Your task to perform on an android device: refresh tabs in the chrome app Image 0: 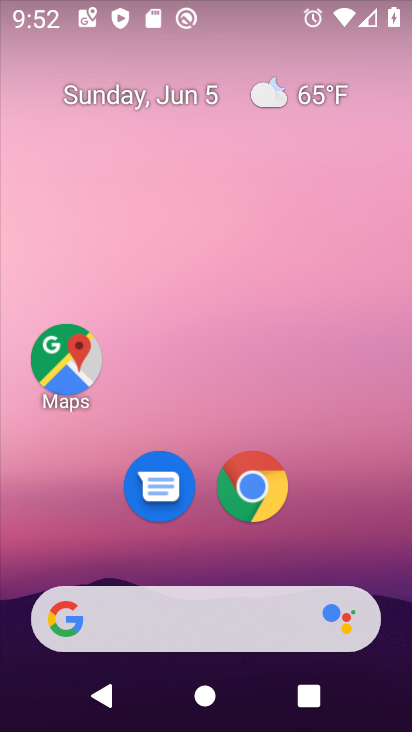
Step 0: click (299, 144)
Your task to perform on an android device: refresh tabs in the chrome app Image 1: 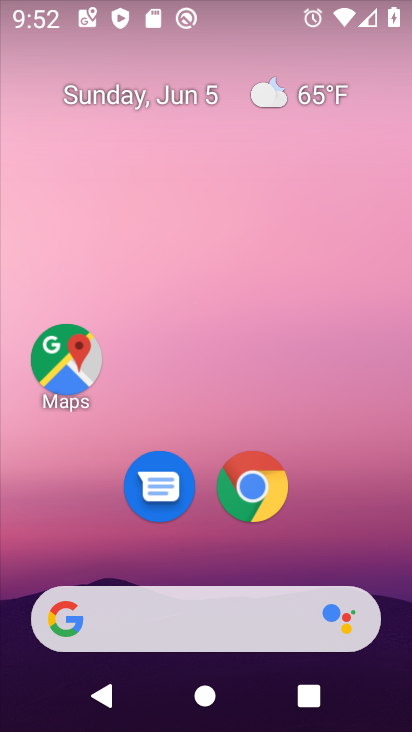
Step 1: drag from (324, 534) to (319, 130)
Your task to perform on an android device: refresh tabs in the chrome app Image 2: 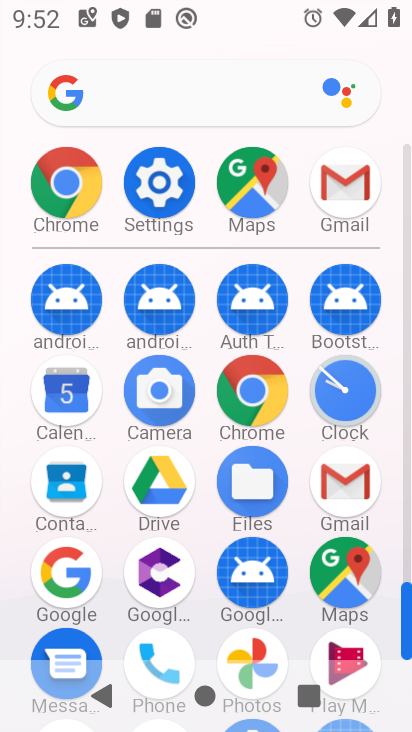
Step 2: click (257, 401)
Your task to perform on an android device: refresh tabs in the chrome app Image 3: 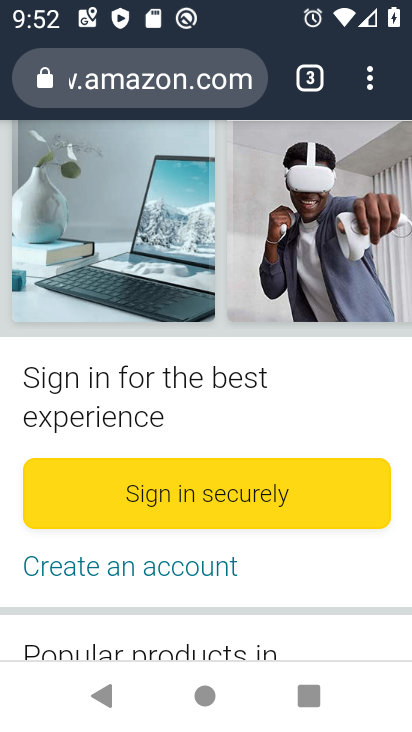
Step 3: click (124, 75)
Your task to perform on an android device: refresh tabs in the chrome app Image 4: 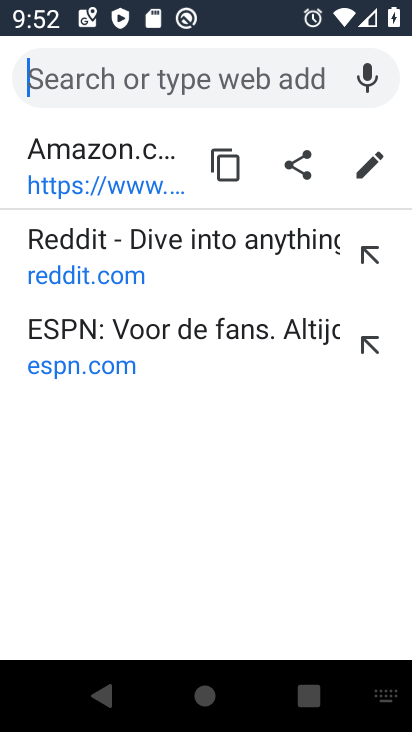
Step 4: click (195, 561)
Your task to perform on an android device: refresh tabs in the chrome app Image 5: 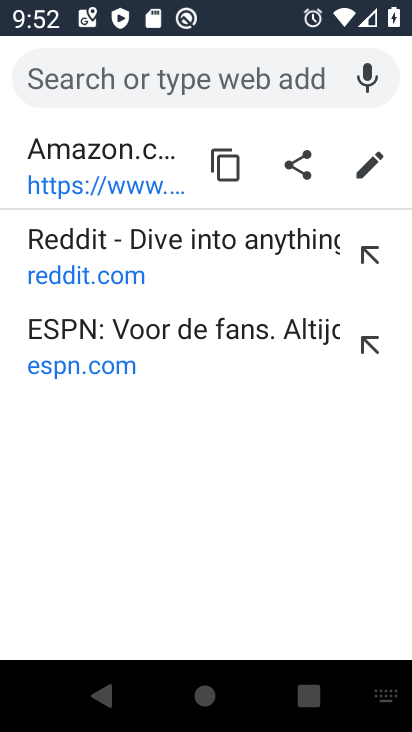
Step 5: press back button
Your task to perform on an android device: refresh tabs in the chrome app Image 6: 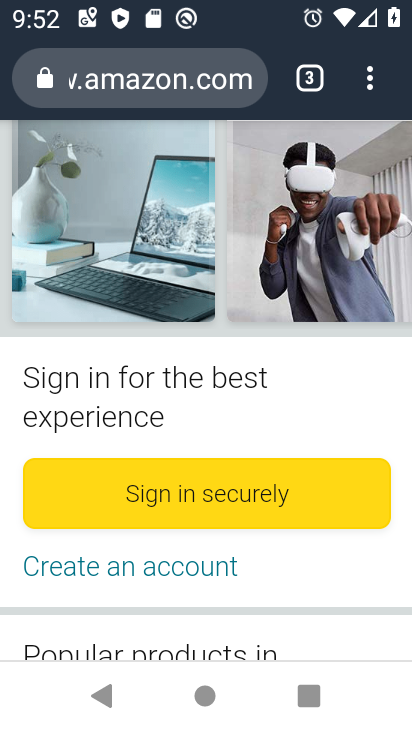
Step 6: click (376, 88)
Your task to perform on an android device: refresh tabs in the chrome app Image 7: 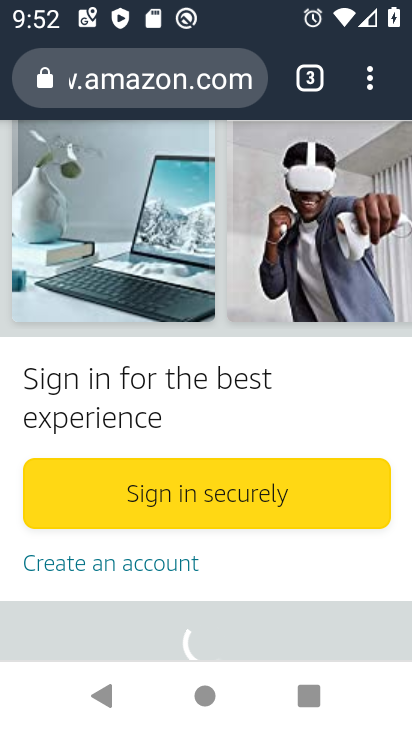
Step 7: task complete